Your task to perform on an android device: change the clock display to analog Image 0: 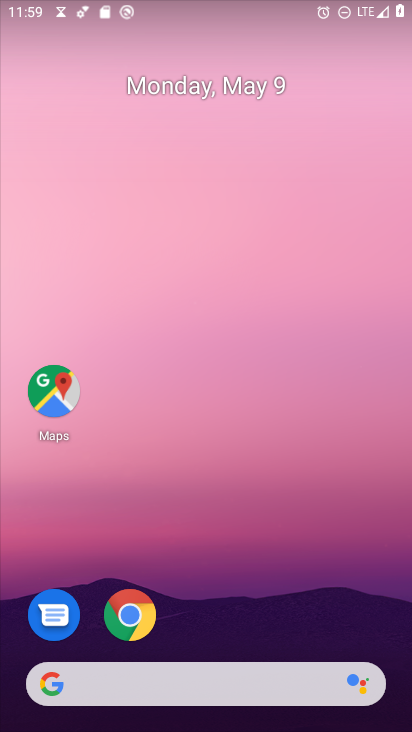
Step 0: drag from (211, 730) to (211, 147)
Your task to perform on an android device: change the clock display to analog Image 1: 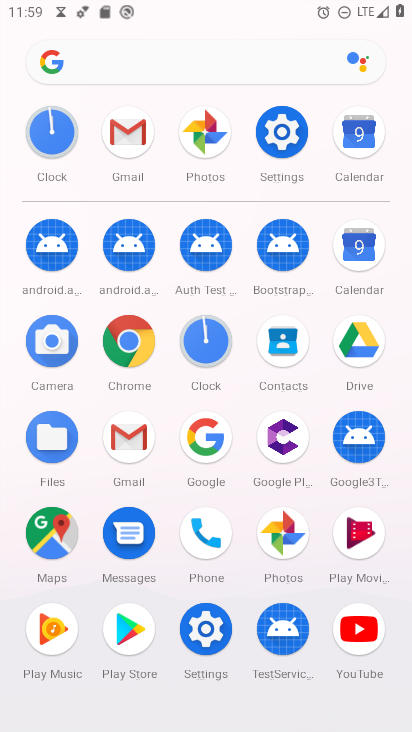
Step 1: click (214, 340)
Your task to perform on an android device: change the clock display to analog Image 2: 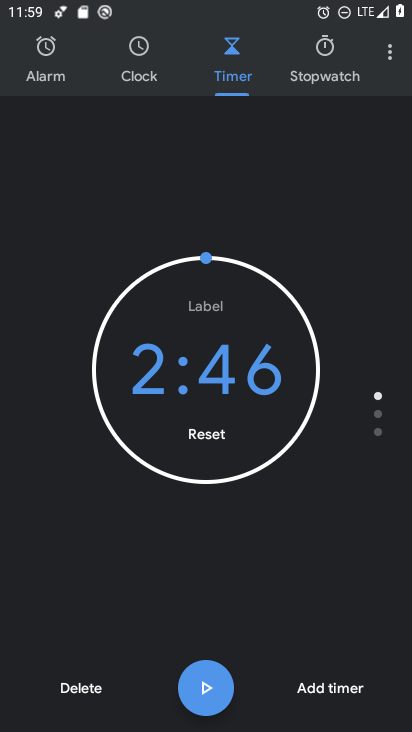
Step 2: click (391, 55)
Your task to perform on an android device: change the clock display to analog Image 3: 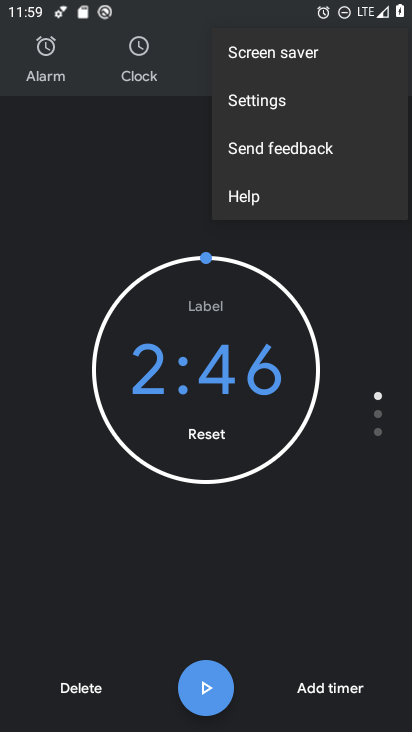
Step 3: click (259, 98)
Your task to perform on an android device: change the clock display to analog Image 4: 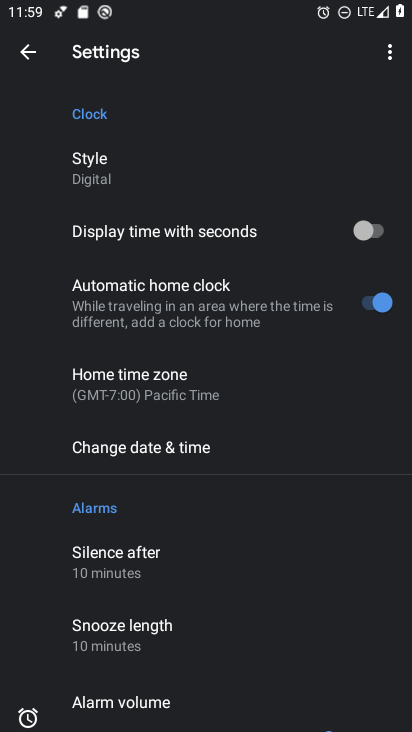
Step 4: click (100, 168)
Your task to perform on an android device: change the clock display to analog Image 5: 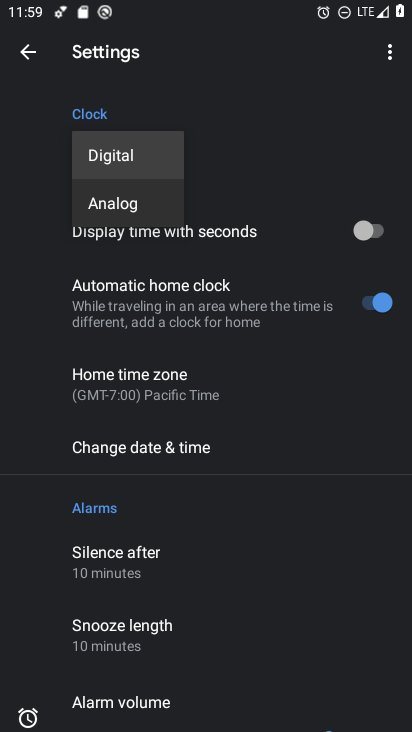
Step 5: click (110, 206)
Your task to perform on an android device: change the clock display to analog Image 6: 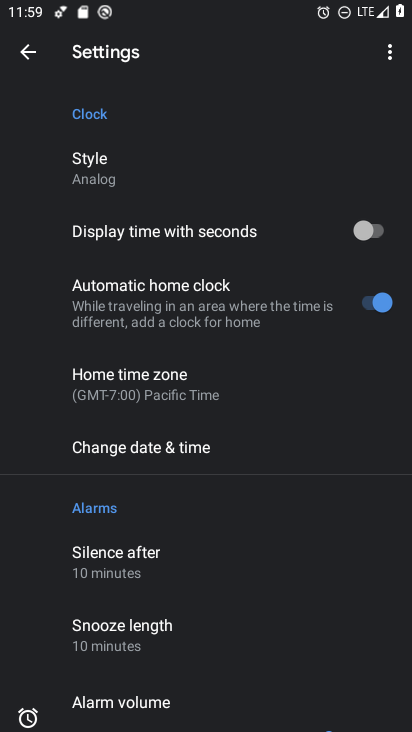
Step 6: task complete